Your task to perform on an android device: Open Amazon Image 0: 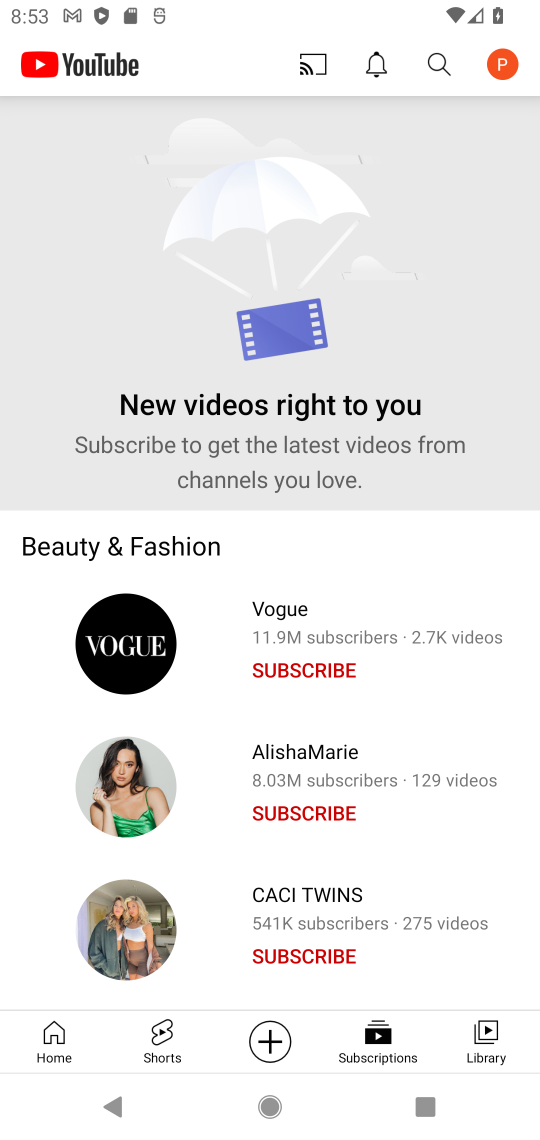
Step 0: press home button
Your task to perform on an android device: Open Amazon Image 1: 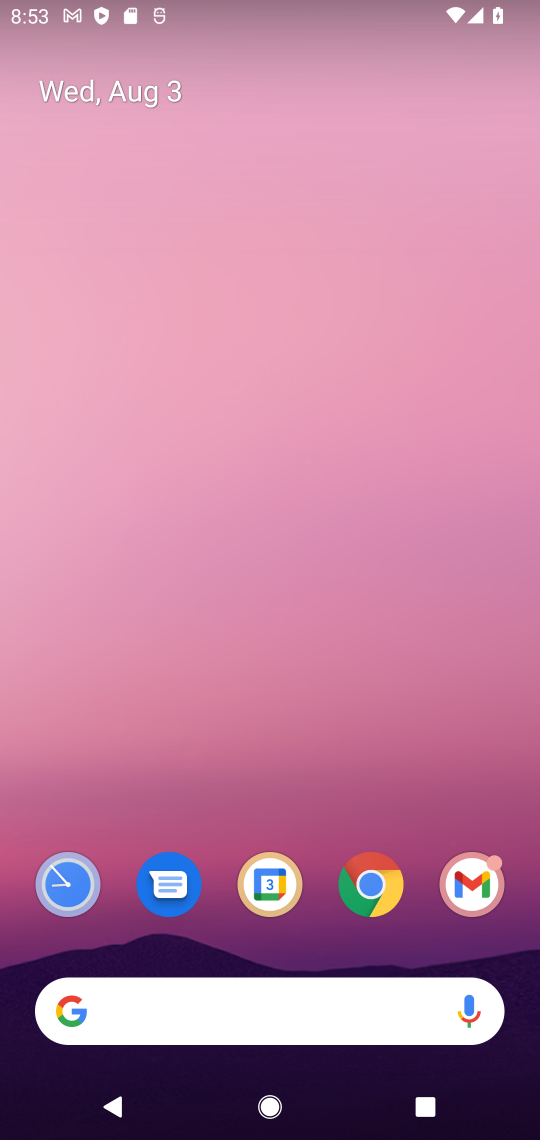
Step 1: click (144, 993)
Your task to perform on an android device: Open Amazon Image 2: 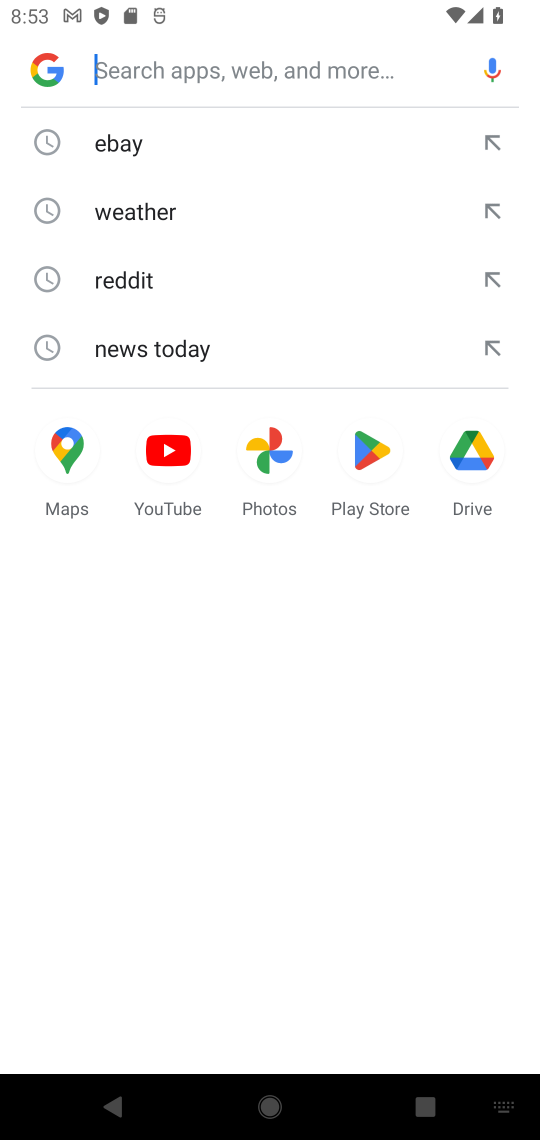
Step 2: type "Amazon"
Your task to perform on an android device: Open Amazon Image 3: 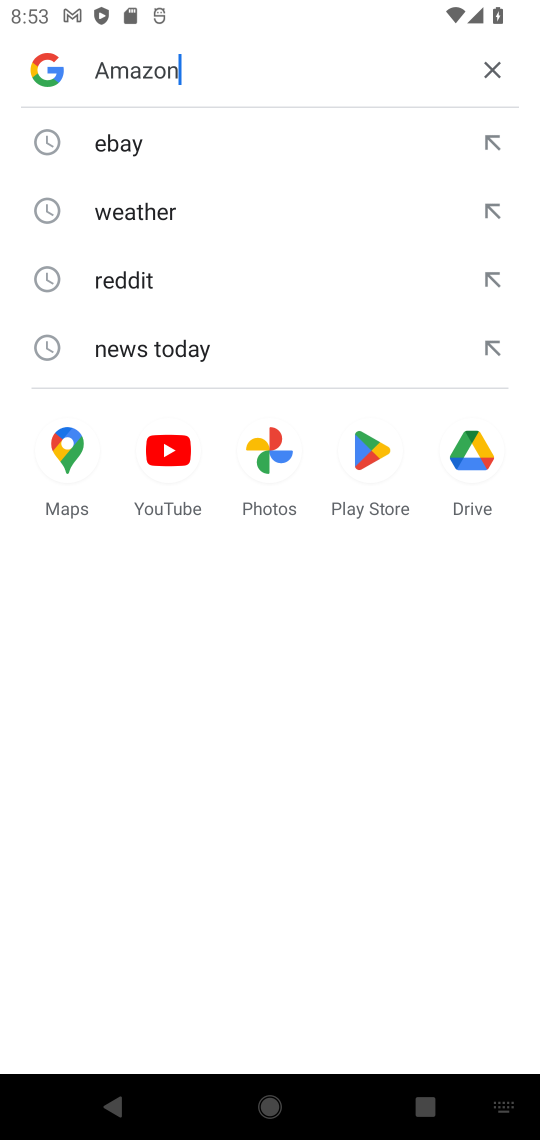
Step 3: type ""
Your task to perform on an android device: Open Amazon Image 4: 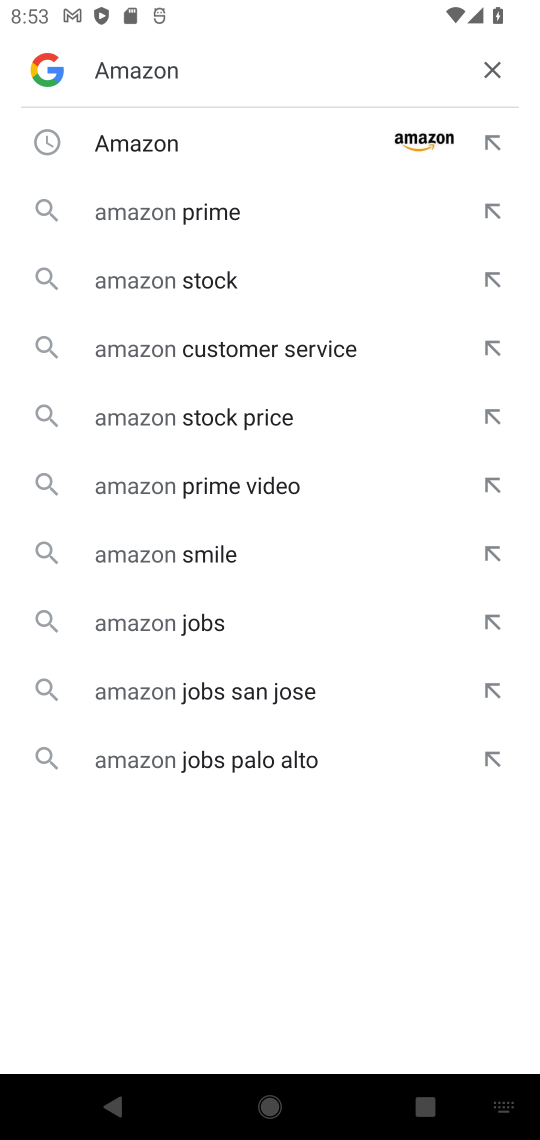
Step 4: click (131, 149)
Your task to perform on an android device: Open Amazon Image 5: 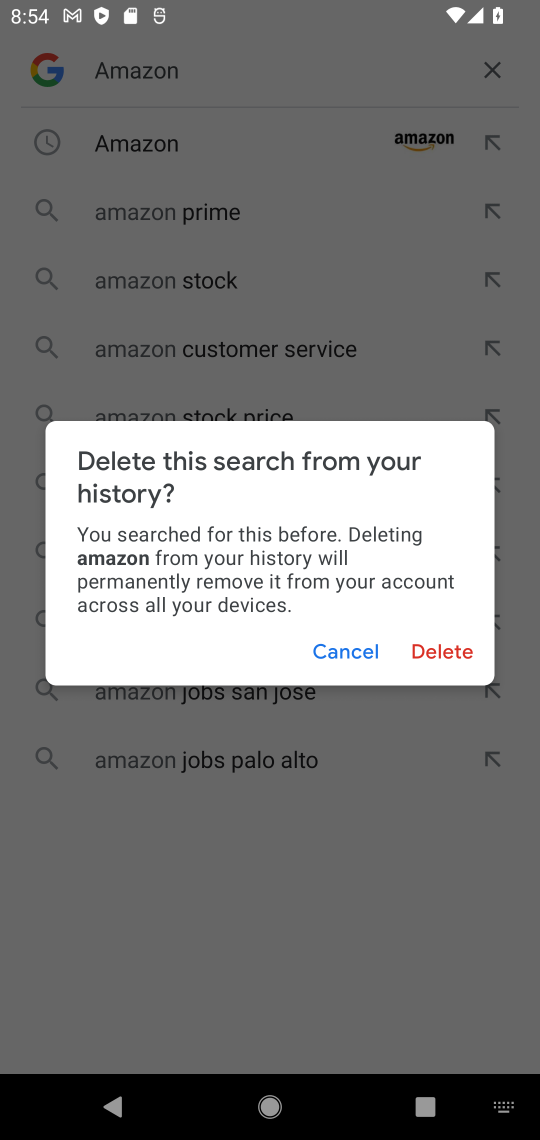
Step 5: click (354, 652)
Your task to perform on an android device: Open Amazon Image 6: 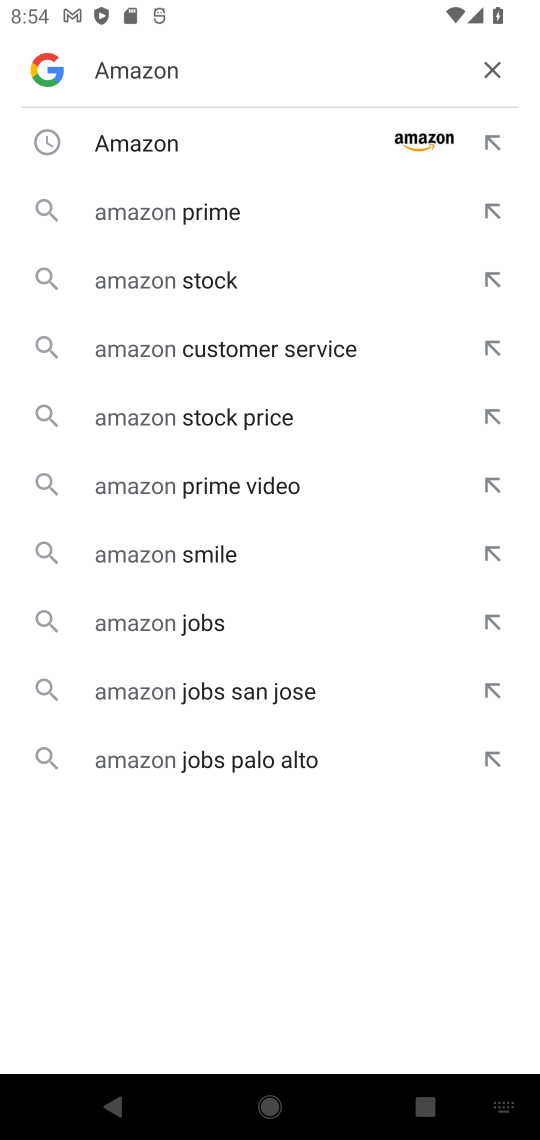
Step 6: click (155, 143)
Your task to perform on an android device: Open Amazon Image 7: 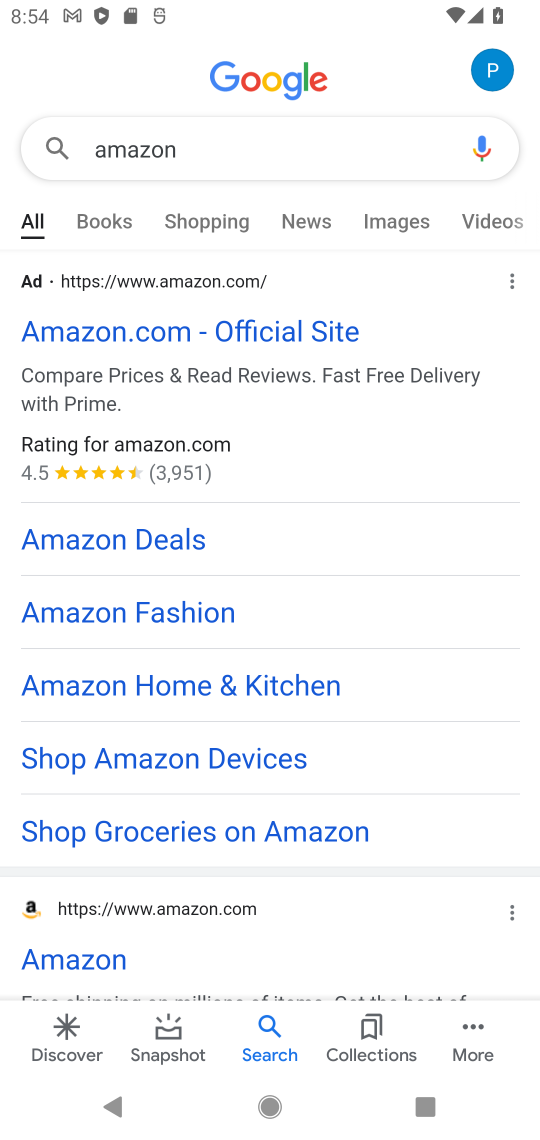
Step 7: task complete